Your task to perform on an android device: add a label to a message in the gmail app Image 0: 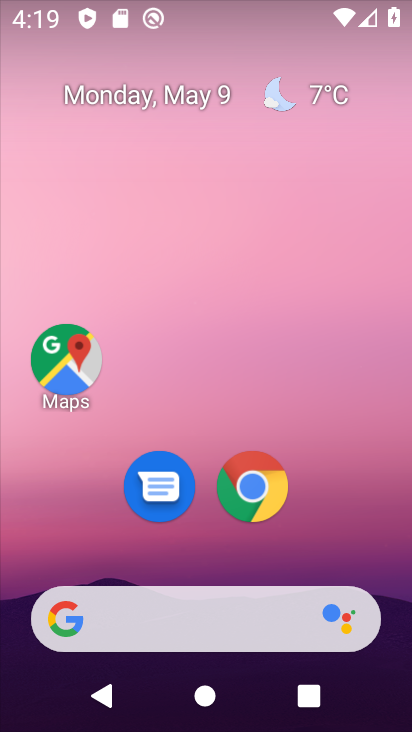
Step 0: drag from (203, 529) to (231, 120)
Your task to perform on an android device: add a label to a message in the gmail app Image 1: 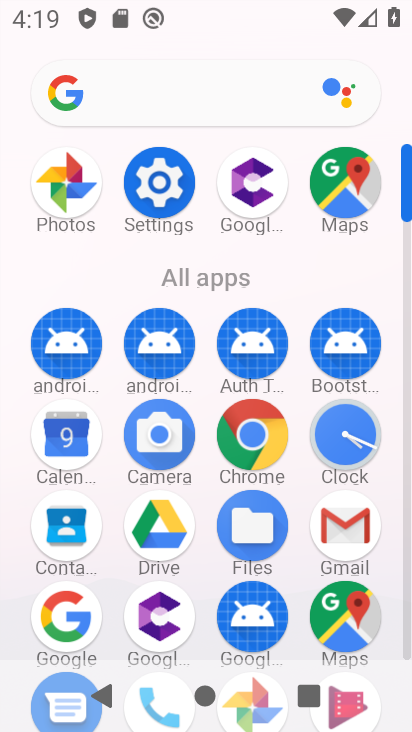
Step 1: click (336, 534)
Your task to perform on an android device: add a label to a message in the gmail app Image 2: 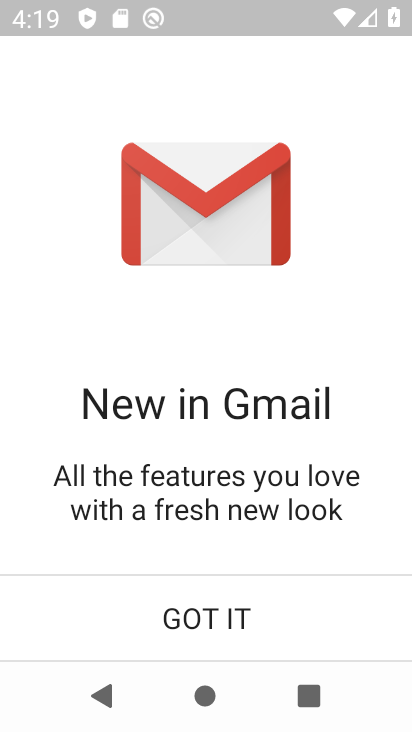
Step 2: click (219, 602)
Your task to perform on an android device: add a label to a message in the gmail app Image 3: 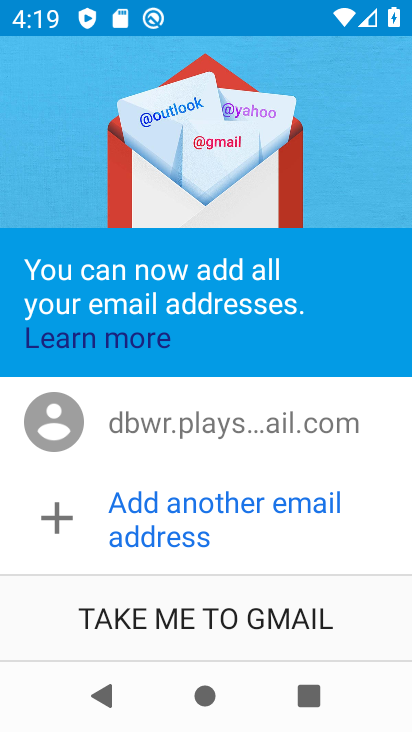
Step 3: click (219, 602)
Your task to perform on an android device: add a label to a message in the gmail app Image 4: 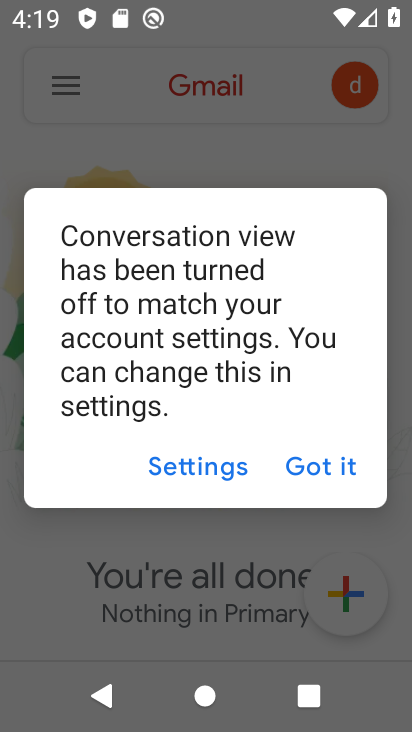
Step 4: click (333, 469)
Your task to perform on an android device: add a label to a message in the gmail app Image 5: 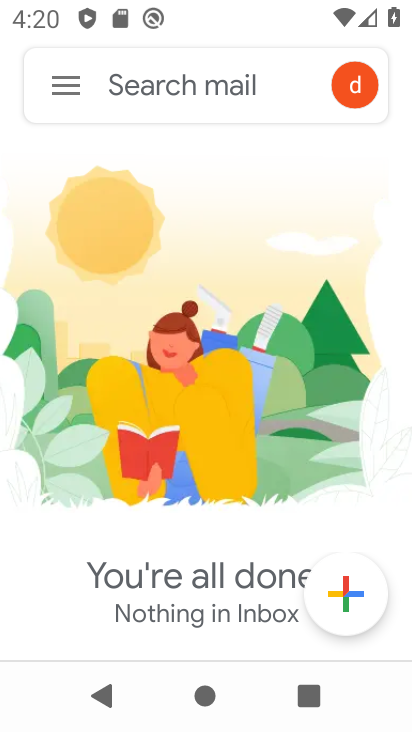
Step 5: task complete